Your task to perform on an android device: Search for seafood restaurants on Google Maps Image 0: 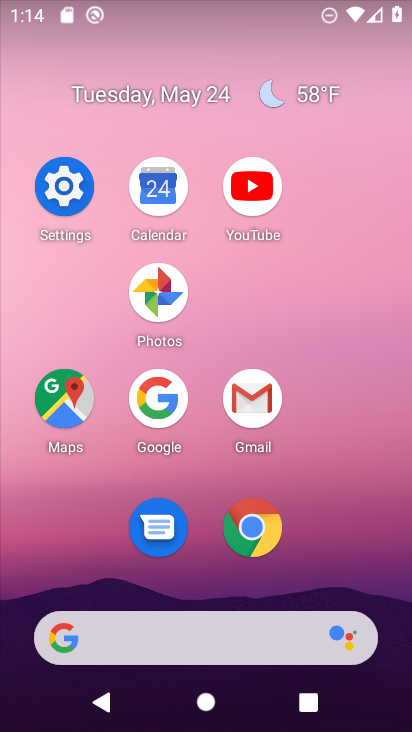
Step 0: click (56, 400)
Your task to perform on an android device: Search for seafood restaurants on Google Maps Image 1: 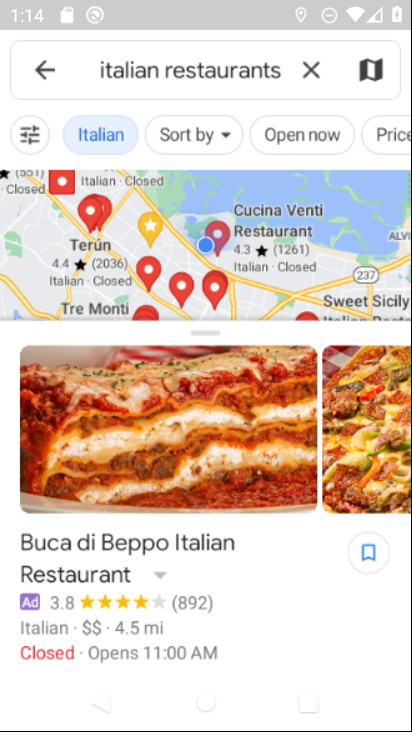
Step 1: click (315, 82)
Your task to perform on an android device: Search for seafood restaurants on Google Maps Image 2: 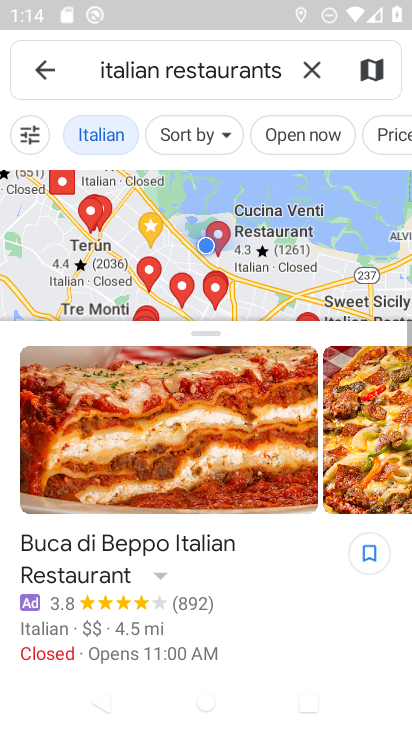
Step 2: click (310, 66)
Your task to perform on an android device: Search for seafood restaurants on Google Maps Image 3: 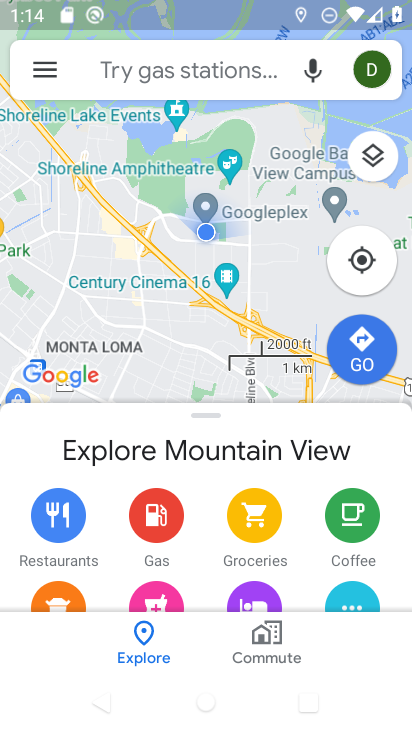
Step 3: click (168, 73)
Your task to perform on an android device: Search for seafood restaurants on Google Maps Image 4: 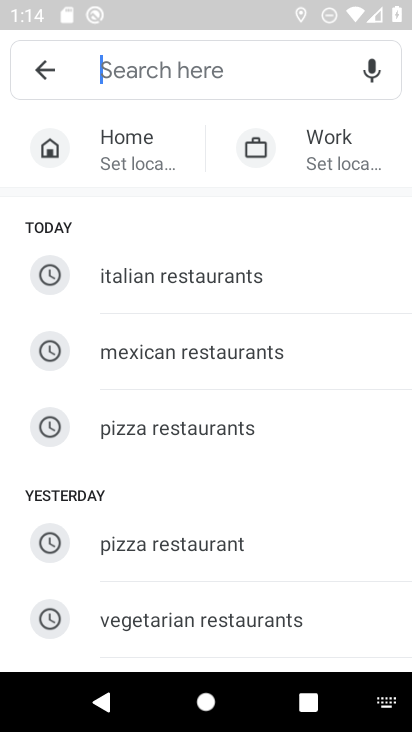
Step 4: drag from (205, 582) to (229, 192)
Your task to perform on an android device: Search for seafood restaurants on Google Maps Image 5: 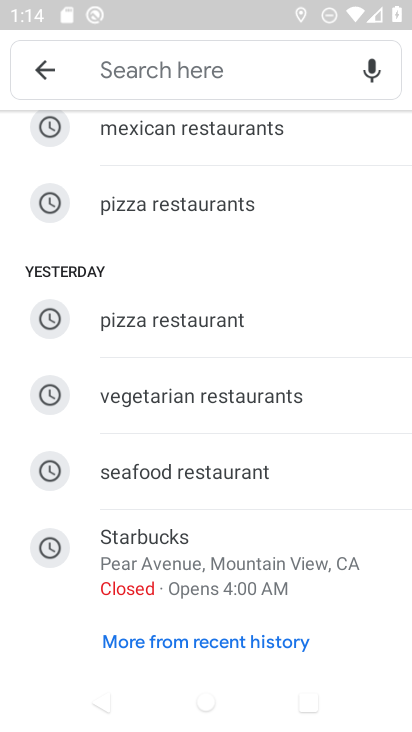
Step 5: click (212, 479)
Your task to perform on an android device: Search for seafood restaurants on Google Maps Image 6: 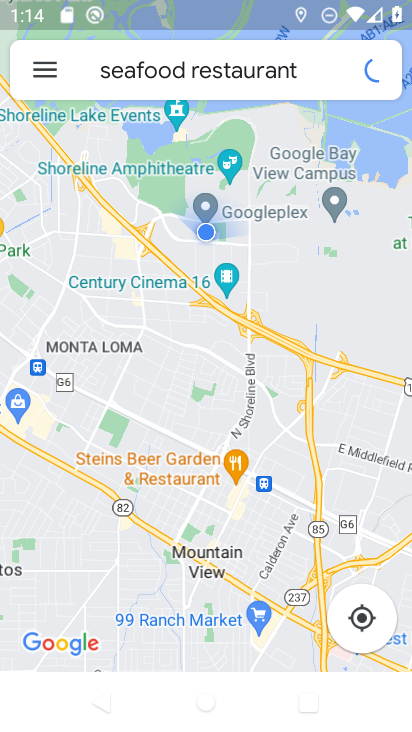
Step 6: task complete